Your task to perform on an android device: choose inbox layout in the gmail app Image 0: 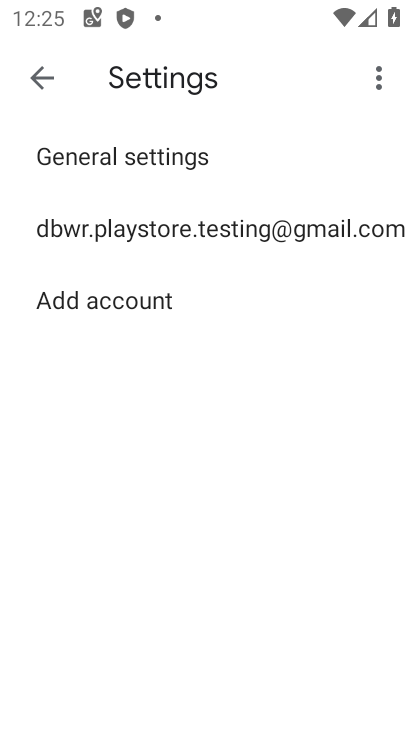
Step 0: press home button
Your task to perform on an android device: choose inbox layout in the gmail app Image 1: 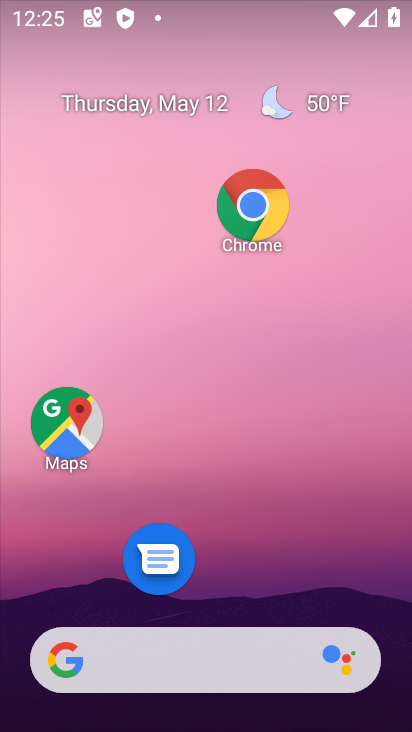
Step 1: click (249, 244)
Your task to perform on an android device: choose inbox layout in the gmail app Image 2: 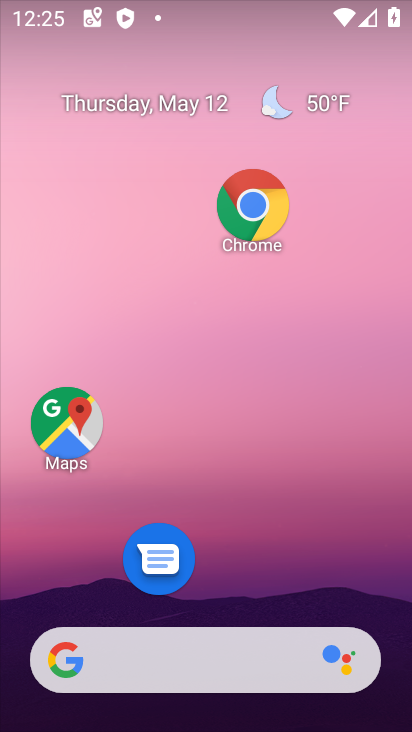
Step 2: drag from (269, 579) to (310, 262)
Your task to perform on an android device: choose inbox layout in the gmail app Image 3: 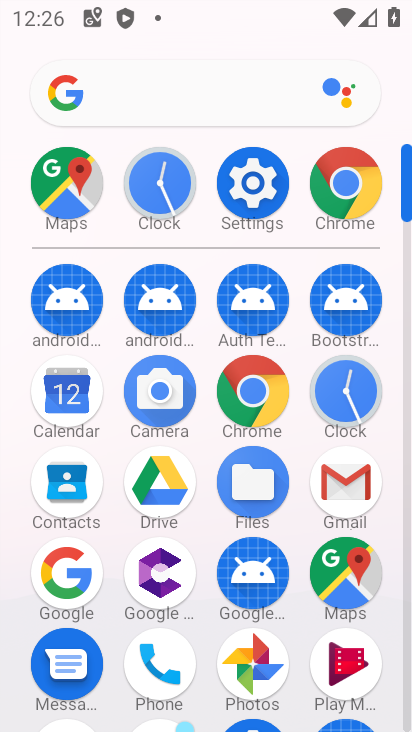
Step 3: click (359, 524)
Your task to perform on an android device: choose inbox layout in the gmail app Image 4: 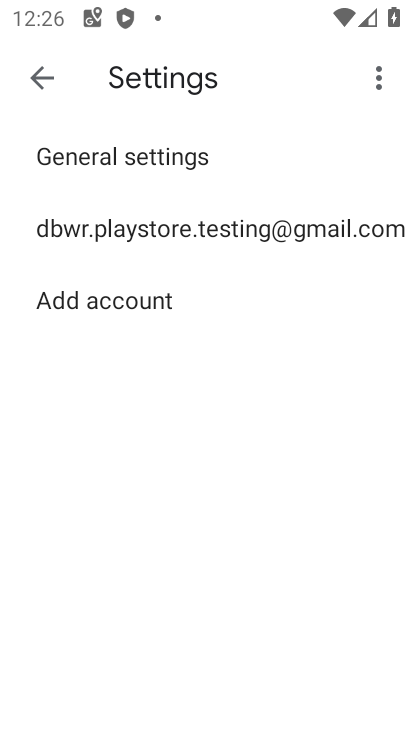
Step 4: click (205, 228)
Your task to perform on an android device: choose inbox layout in the gmail app Image 5: 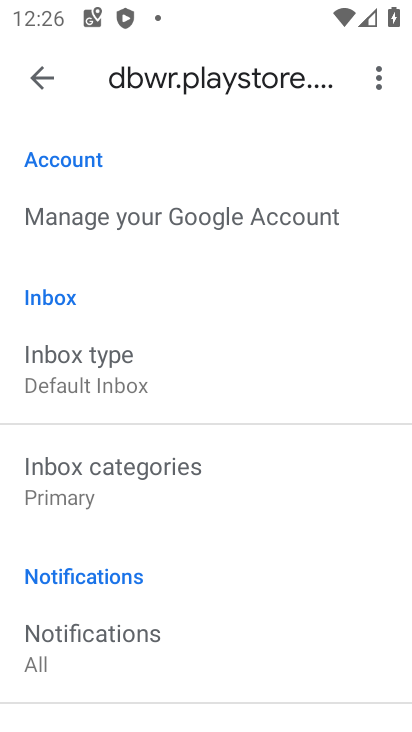
Step 5: click (79, 374)
Your task to perform on an android device: choose inbox layout in the gmail app Image 6: 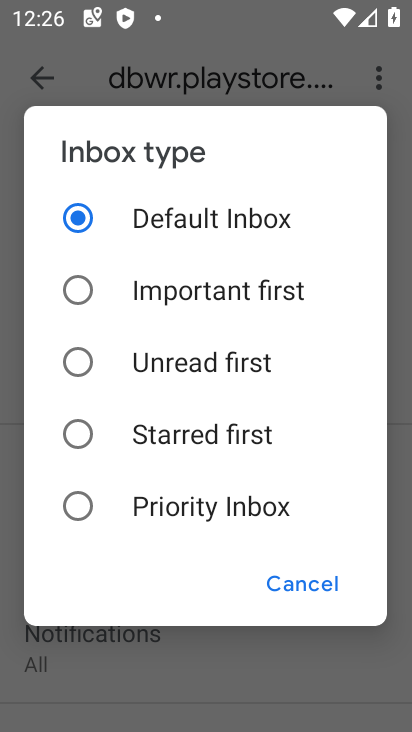
Step 6: click (79, 302)
Your task to perform on an android device: choose inbox layout in the gmail app Image 7: 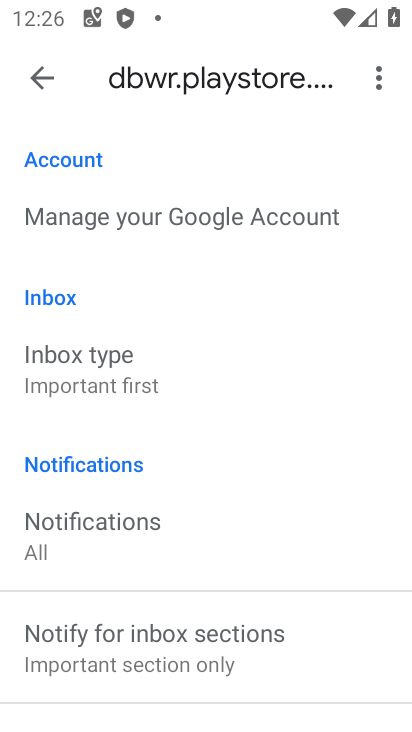
Step 7: task complete